Your task to perform on an android device: change the clock display to digital Image 0: 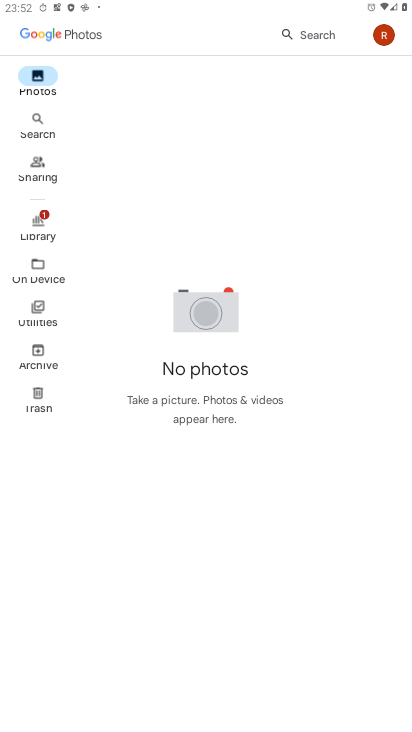
Step 0: press home button
Your task to perform on an android device: change the clock display to digital Image 1: 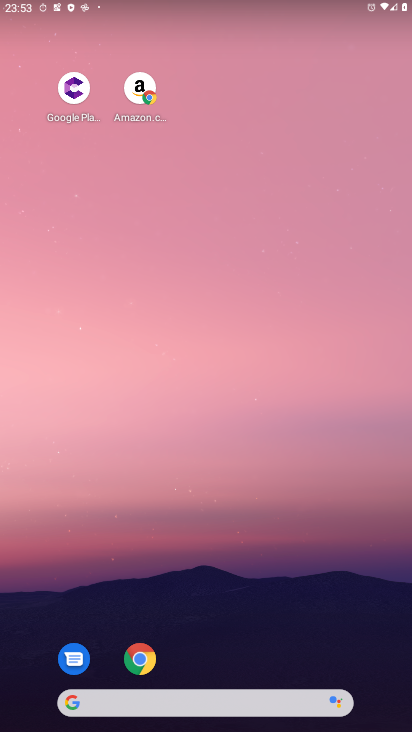
Step 1: drag from (300, 652) to (335, 168)
Your task to perform on an android device: change the clock display to digital Image 2: 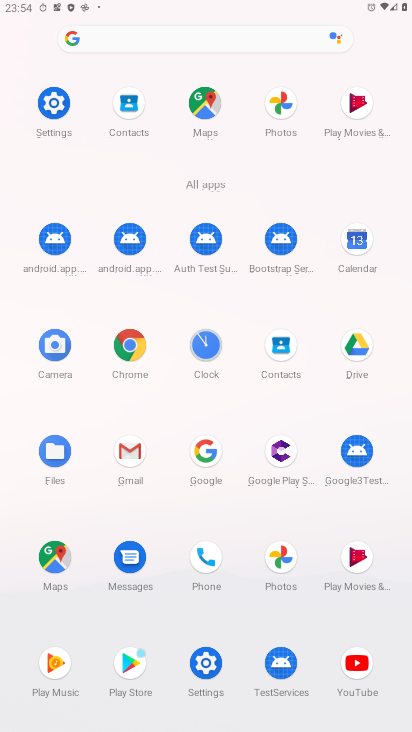
Step 2: click (215, 351)
Your task to perform on an android device: change the clock display to digital Image 3: 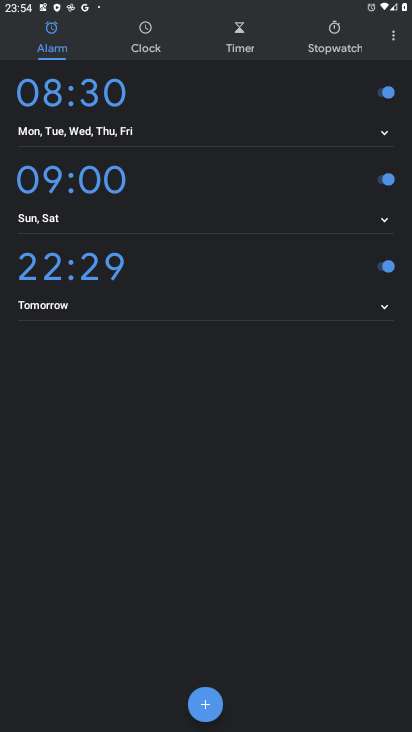
Step 3: click (398, 40)
Your task to perform on an android device: change the clock display to digital Image 4: 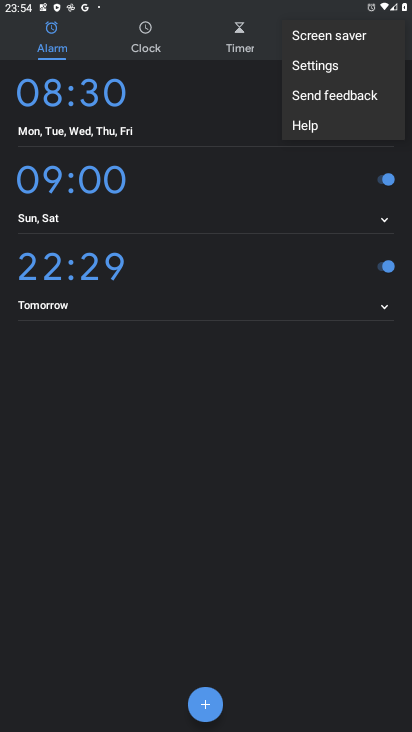
Step 4: click (318, 70)
Your task to perform on an android device: change the clock display to digital Image 5: 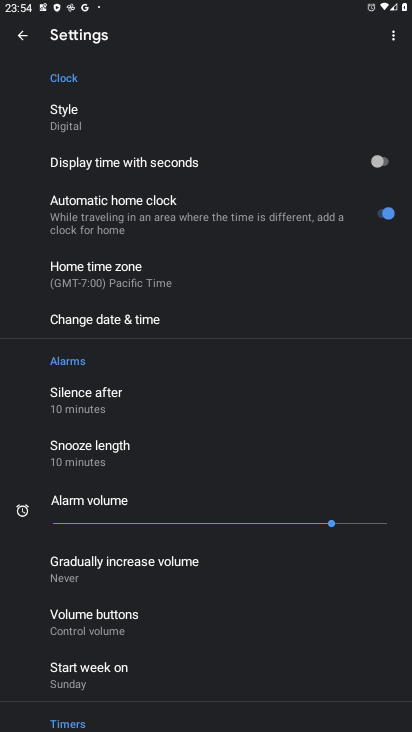
Step 5: click (132, 109)
Your task to perform on an android device: change the clock display to digital Image 6: 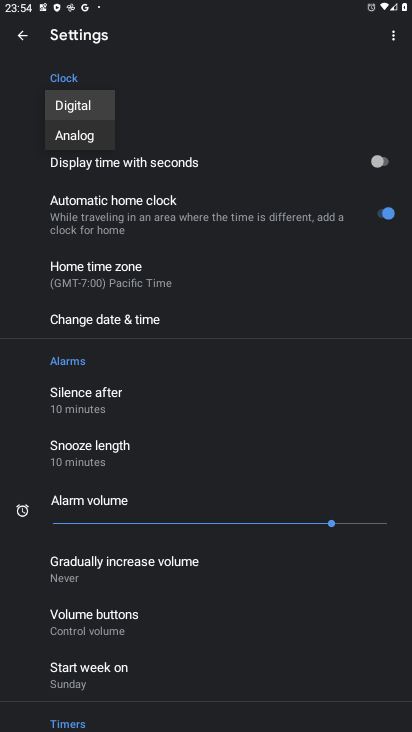
Step 6: task complete